Your task to perform on an android device: Go to ESPN.com Image 0: 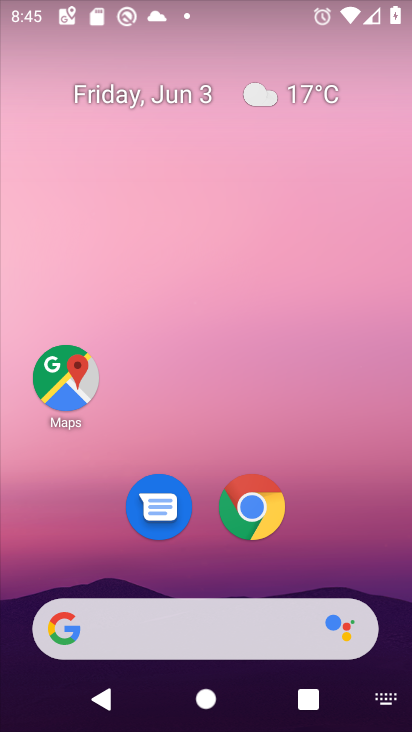
Step 0: click (275, 509)
Your task to perform on an android device: Go to ESPN.com Image 1: 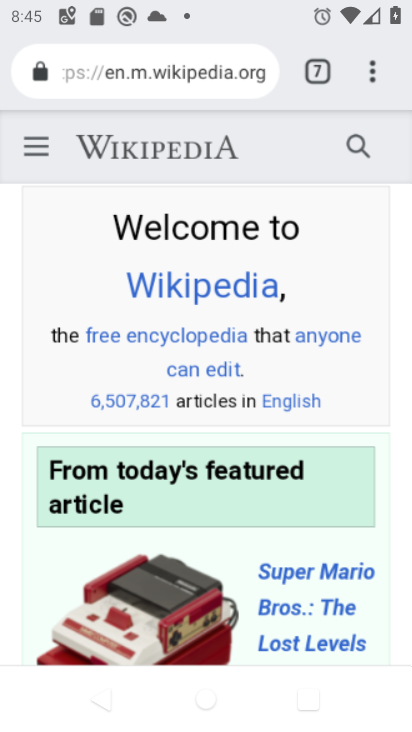
Step 1: drag from (228, 138) to (231, 483)
Your task to perform on an android device: Go to ESPN.com Image 2: 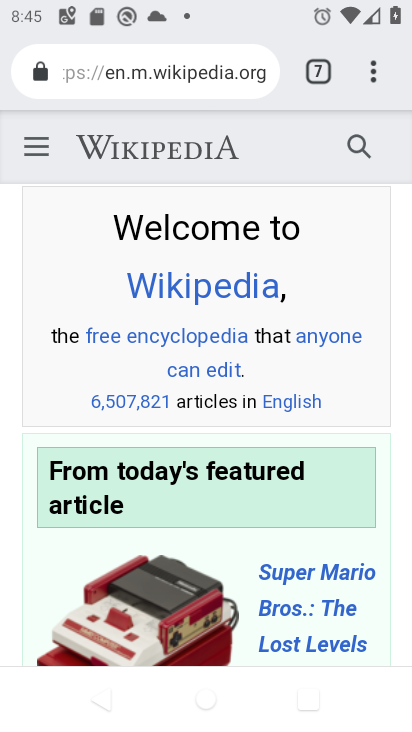
Step 2: click (322, 59)
Your task to perform on an android device: Go to ESPN.com Image 3: 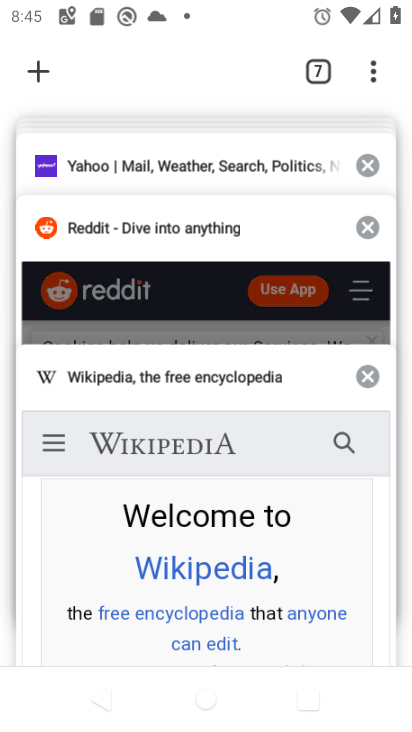
Step 3: drag from (160, 180) to (139, 582)
Your task to perform on an android device: Go to ESPN.com Image 4: 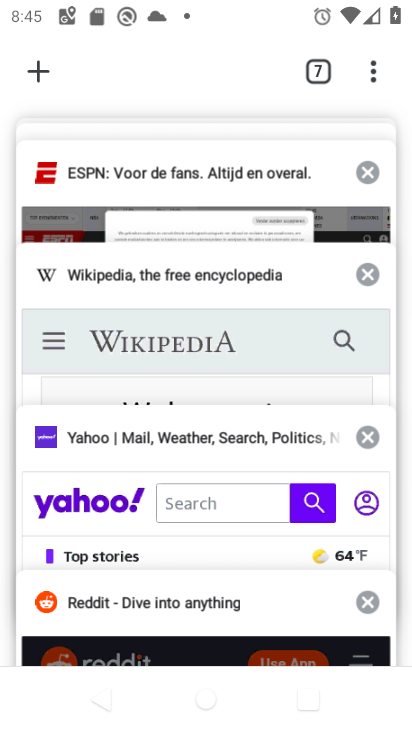
Step 4: click (101, 165)
Your task to perform on an android device: Go to ESPN.com Image 5: 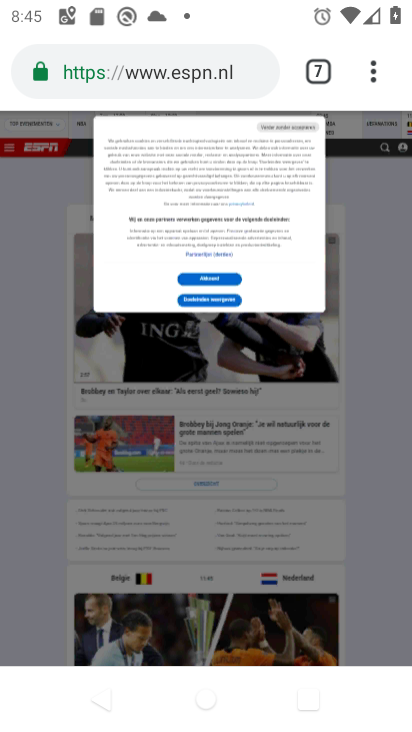
Step 5: task complete